Your task to perform on an android device: Search for vegetarian restaurants on Maps Image 0: 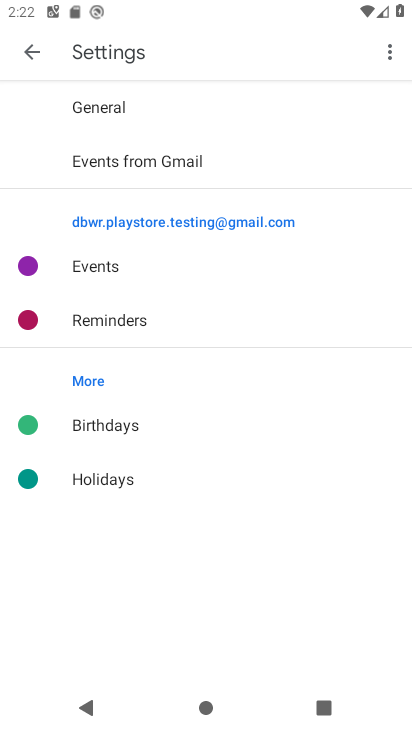
Step 0: press home button
Your task to perform on an android device: Search for vegetarian restaurants on Maps Image 1: 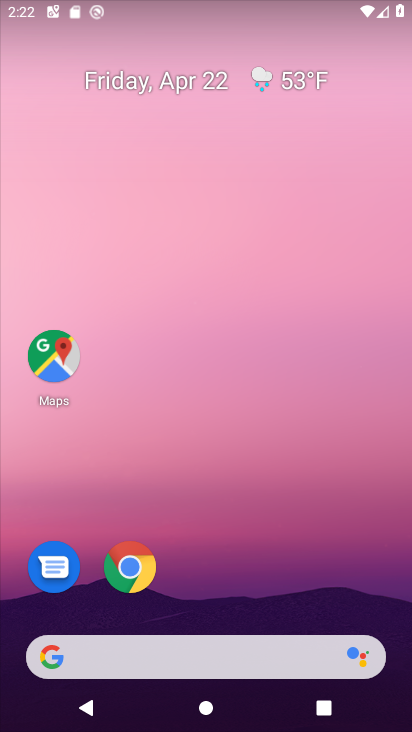
Step 1: click (48, 356)
Your task to perform on an android device: Search for vegetarian restaurants on Maps Image 2: 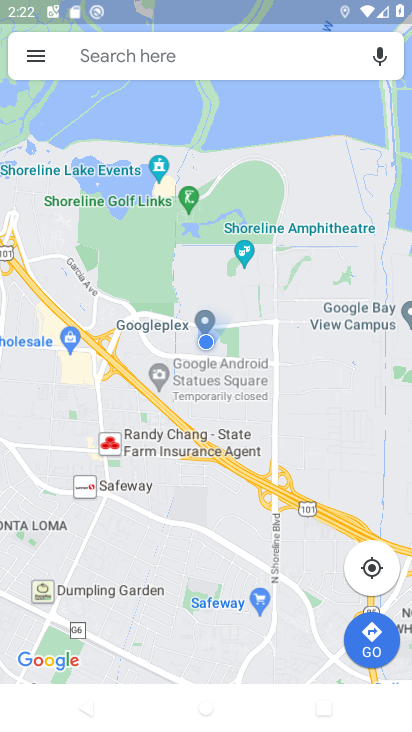
Step 2: click (194, 50)
Your task to perform on an android device: Search for vegetarian restaurants on Maps Image 3: 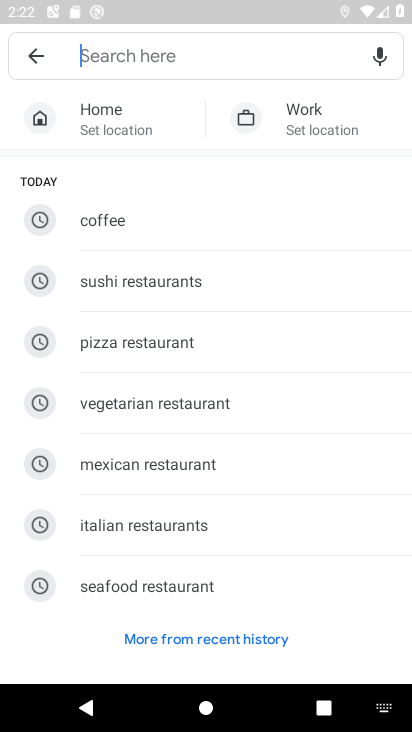
Step 3: click (179, 397)
Your task to perform on an android device: Search for vegetarian restaurants on Maps Image 4: 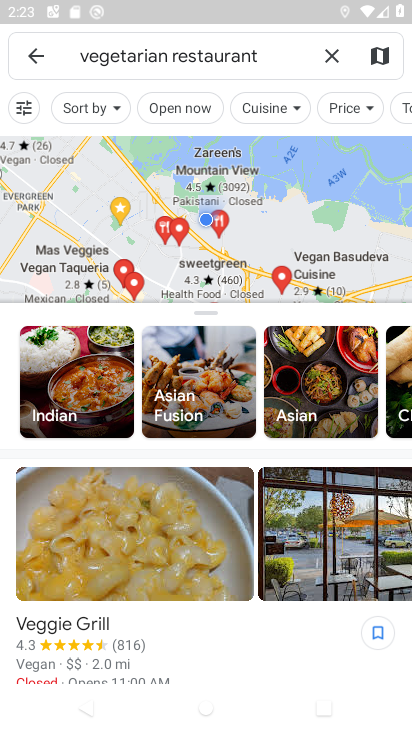
Step 4: task complete